Your task to perform on an android device: What is the news today? Image 0: 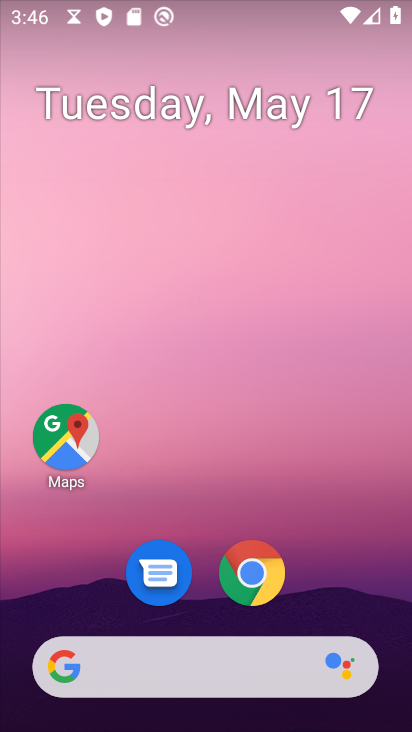
Step 0: drag from (338, 604) to (216, 87)
Your task to perform on an android device: What is the news today? Image 1: 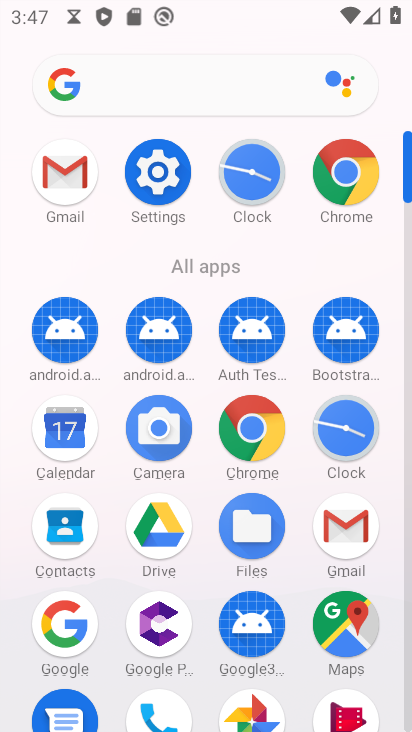
Step 1: click (345, 195)
Your task to perform on an android device: What is the news today? Image 2: 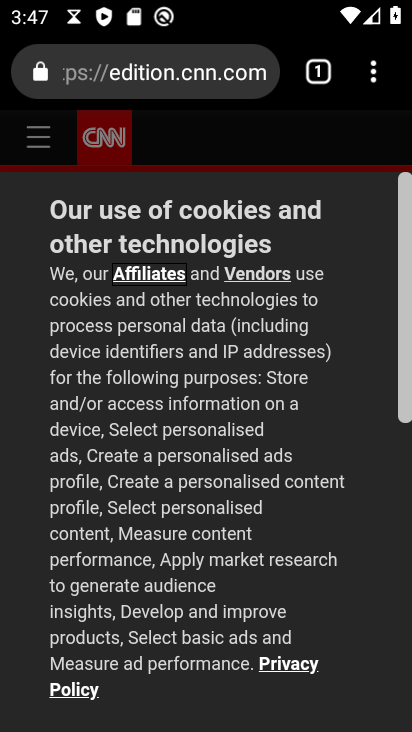
Step 2: click (208, 76)
Your task to perform on an android device: What is the news today? Image 3: 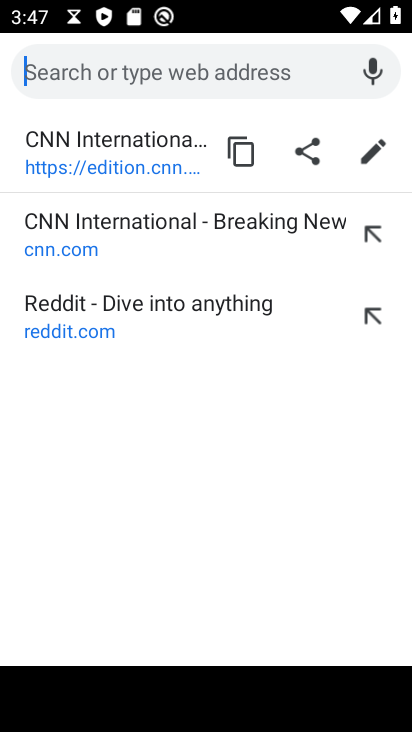
Step 3: type "What is the news today?"
Your task to perform on an android device: What is the news today? Image 4: 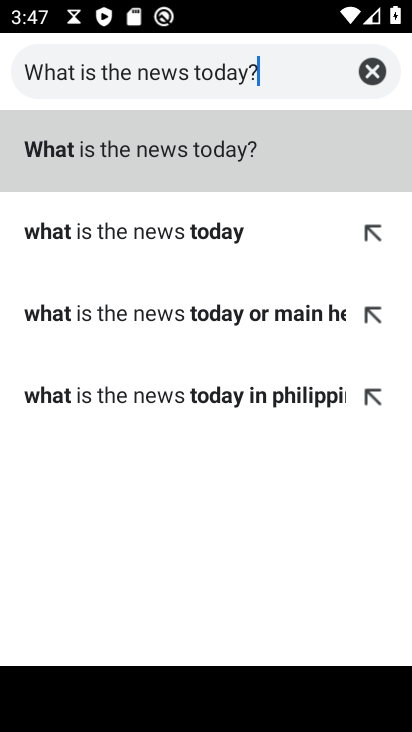
Step 4: click (176, 160)
Your task to perform on an android device: What is the news today? Image 5: 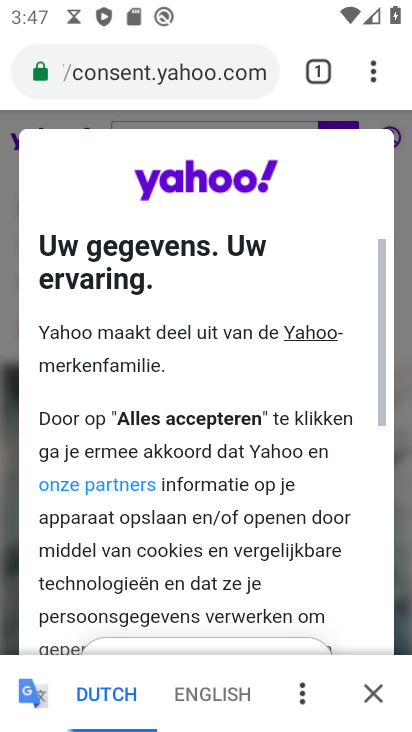
Step 5: drag from (301, 575) to (304, 229)
Your task to perform on an android device: What is the news today? Image 6: 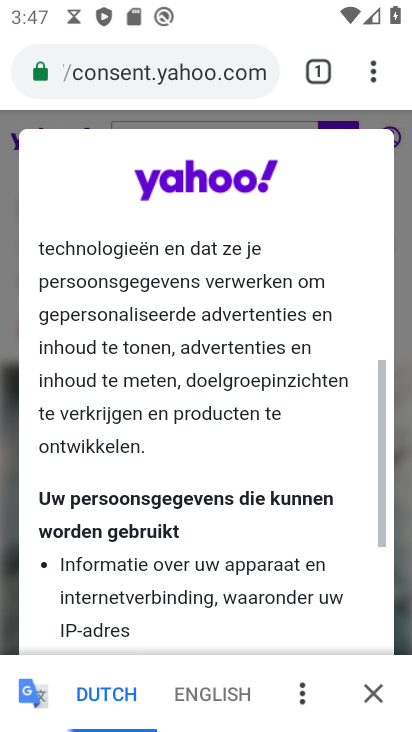
Step 6: drag from (266, 600) to (271, 219)
Your task to perform on an android device: What is the news today? Image 7: 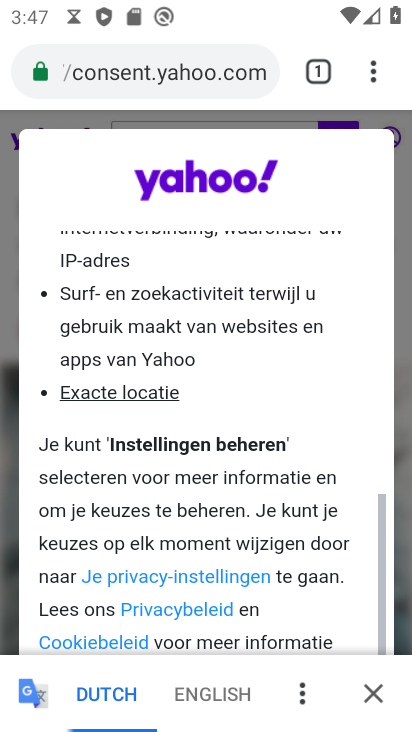
Step 7: drag from (286, 562) to (315, 199)
Your task to perform on an android device: What is the news today? Image 8: 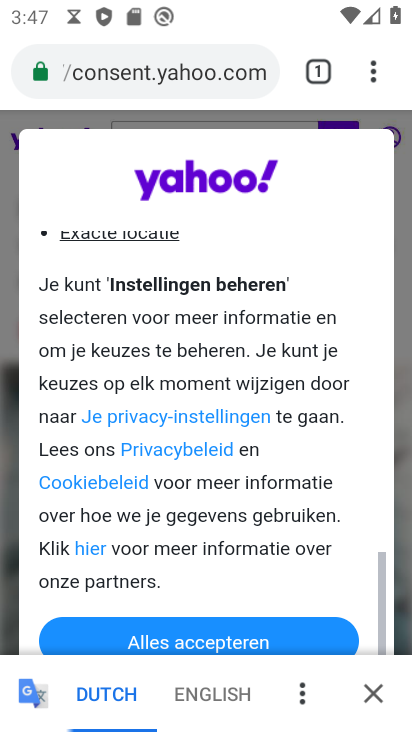
Step 8: click (375, 695)
Your task to perform on an android device: What is the news today? Image 9: 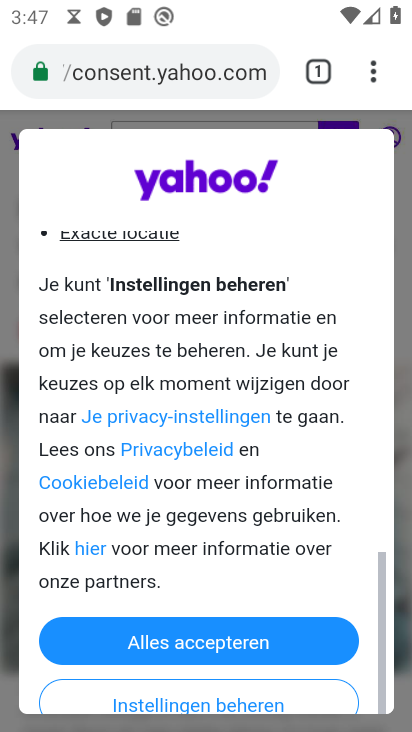
Step 9: click (279, 633)
Your task to perform on an android device: What is the news today? Image 10: 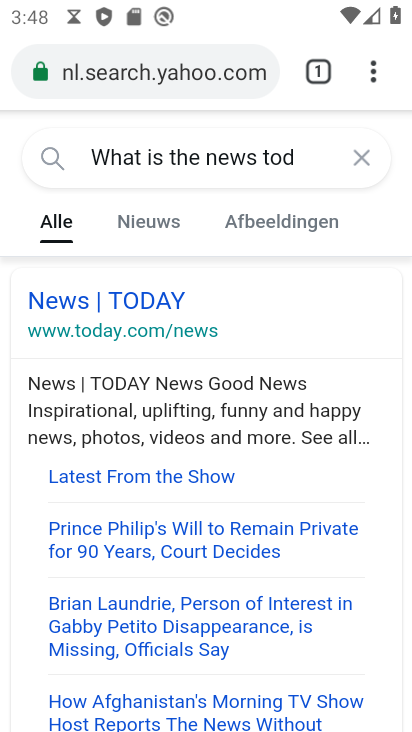
Step 10: click (124, 299)
Your task to perform on an android device: What is the news today? Image 11: 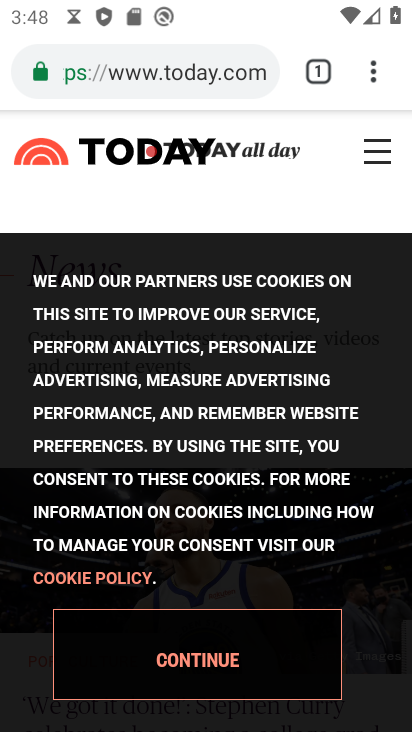
Step 11: click (285, 659)
Your task to perform on an android device: What is the news today? Image 12: 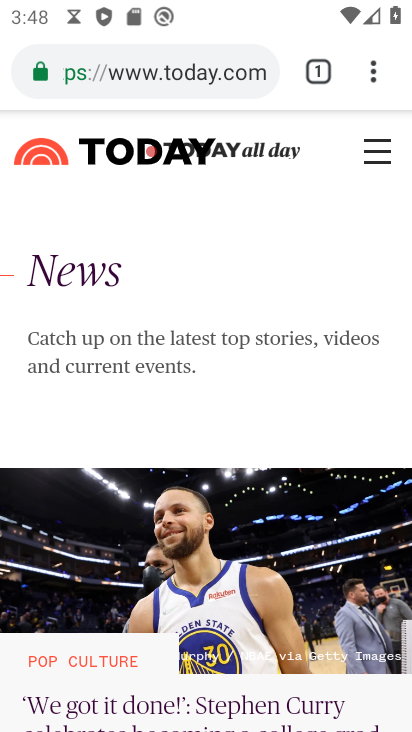
Step 12: task complete